Your task to perform on an android device: change the clock style Image 0: 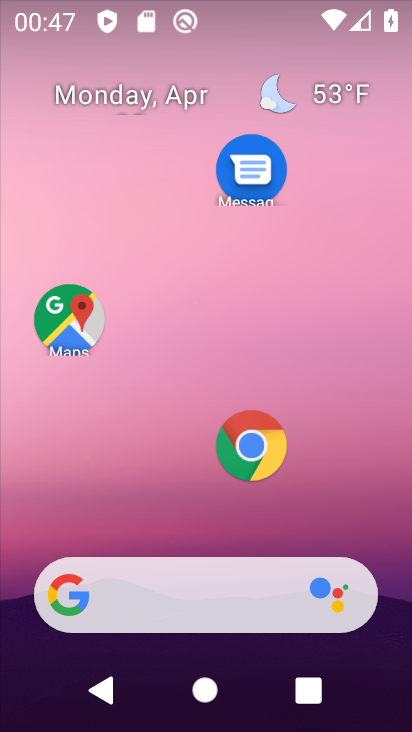
Step 0: drag from (148, 467) to (364, 26)
Your task to perform on an android device: change the clock style Image 1: 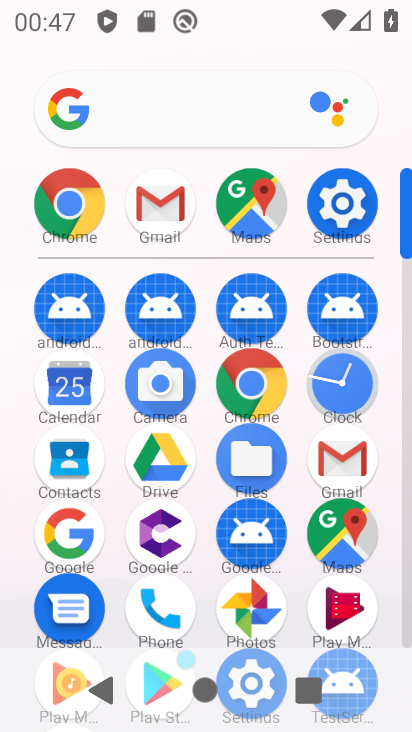
Step 1: click (351, 373)
Your task to perform on an android device: change the clock style Image 2: 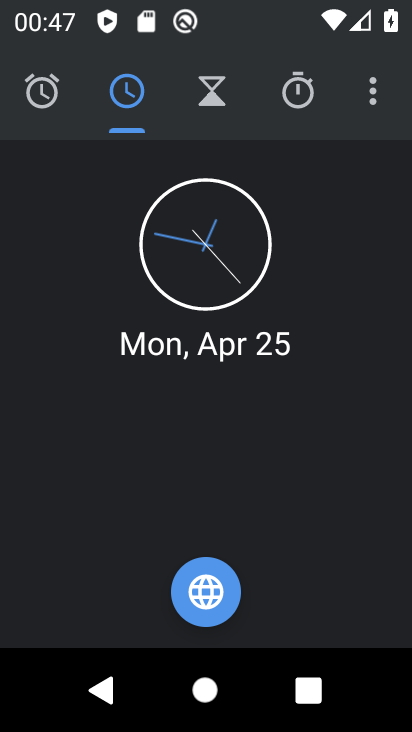
Step 2: click (365, 96)
Your task to perform on an android device: change the clock style Image 3: 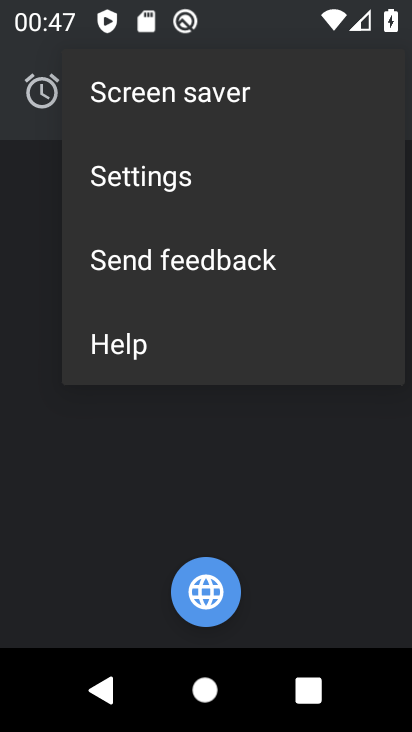
Step 3: click (139, 180)
Your task to perform on an android device: change the clock style Image 4: 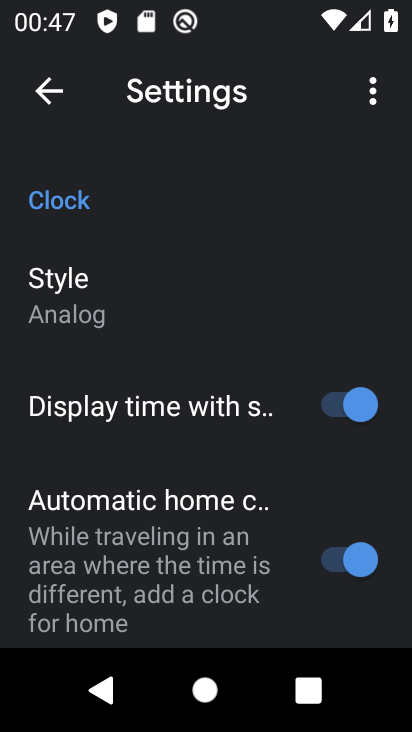
Step 4: click (143, 310)
Your task to perform on an android device: change the clock style Image 5: 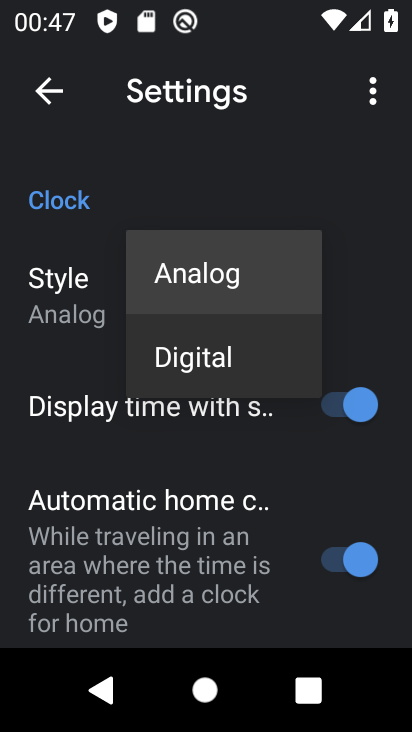
Step 5: click (208, 362)
Your task to perform on an android device: change the clock style Image 6: 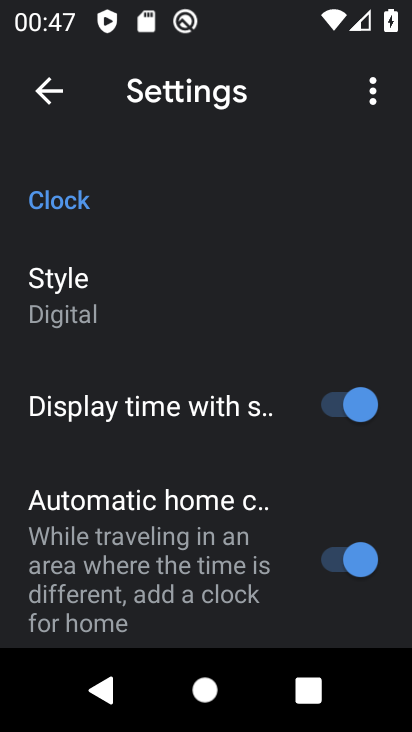
Step 6: task complete